Your task to perform on an android device: stop showing notifications on the lock screen Image 0: 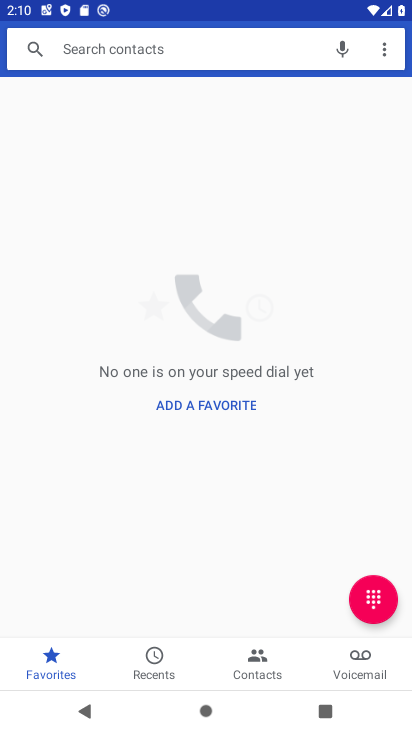
Step 0: press home button
Your task to perform on an android device: stop showing notifications on the lock screen Image 1: 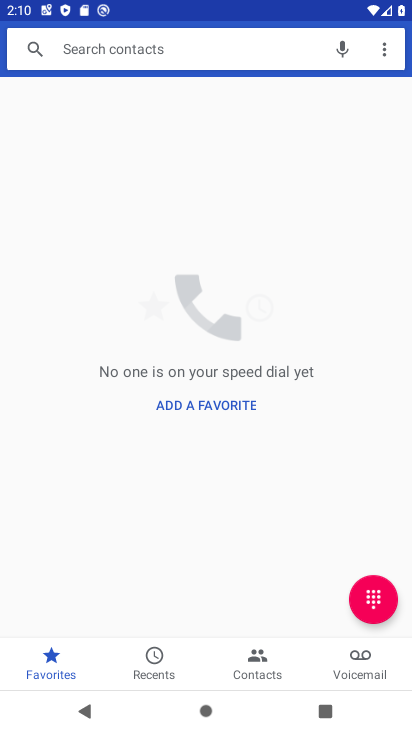
Step 1: drag from (217, 506) to (243, 213)
Your task to perform on an android device: stop showing notifications on the lock screen Image 2: 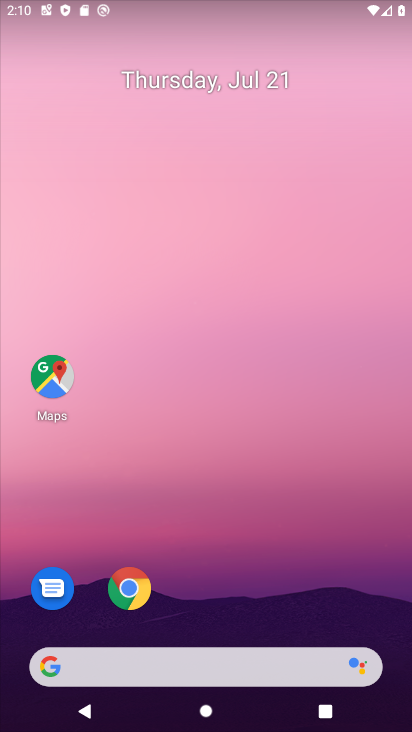
Step 2: drag from (207, 602) to (259, 312)
Your task to perform on an android device: stop showing notifications on the lock screen Image 3: 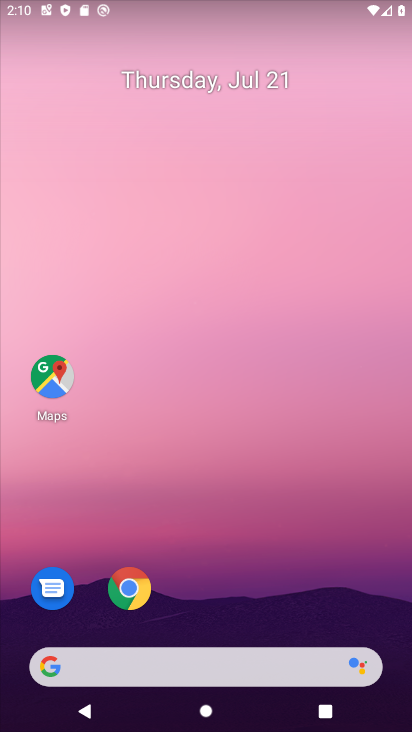
Step 3: drag from (186, 617) to (216, 82)
Your task to perform on an android device: stop showing notifications on the lock screen Image 4: 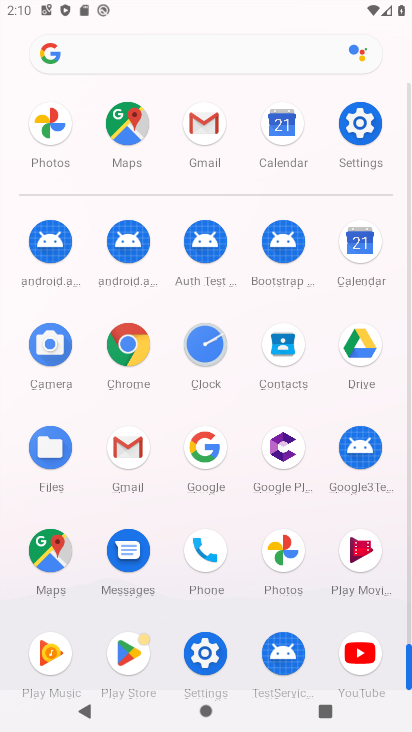
Step 4: click (199, 669)
Your task to perform on an android device: stop showing notifications on the lock screen Image 5: 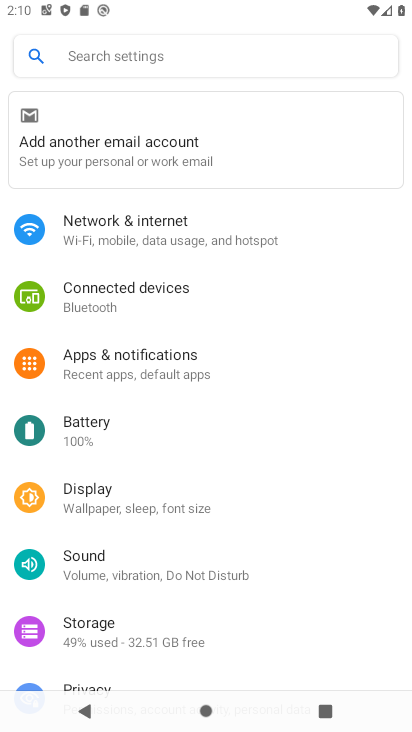
Step 5: drag from (237, 467) to (278, 63)
Your task to perform on an android device: stop showing notifications on the lock screen Image 6: 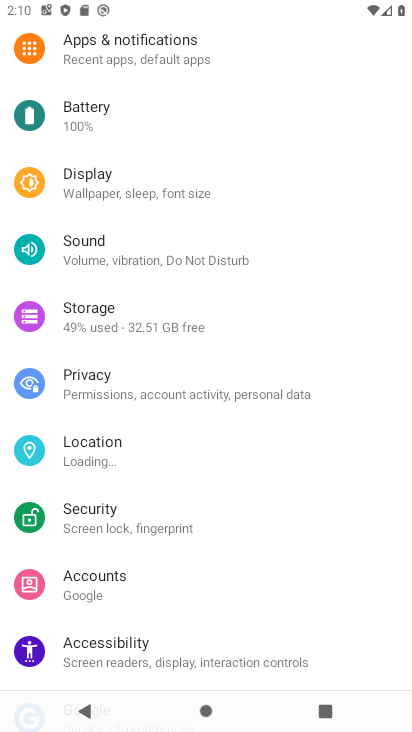
Step 6: drag from (211, 234) to (207, 719)
Your task to perform on an android device: stop showing notifications on the lock screen Image 7: 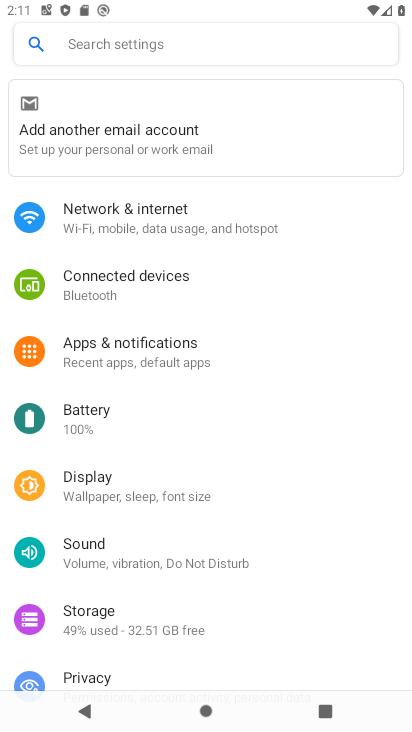
Step 7: click (154, 362)
Your task to perform on an android device: stop showing notifications on the lock screen Image 8: 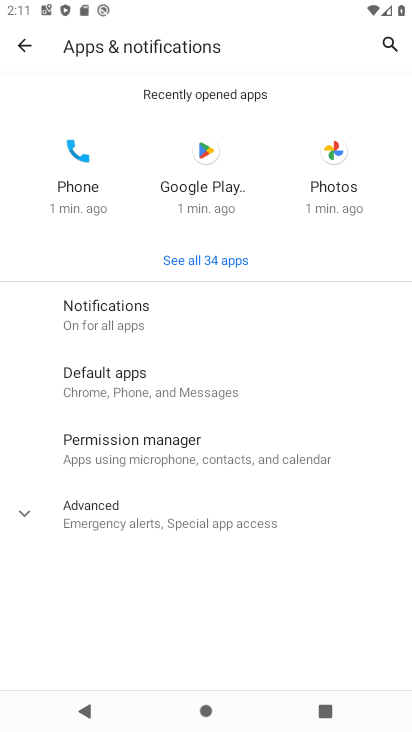
Step 8: click (147, 305)
Your task to perform on an android device: stop showing notifications on the lock screen Image 9: 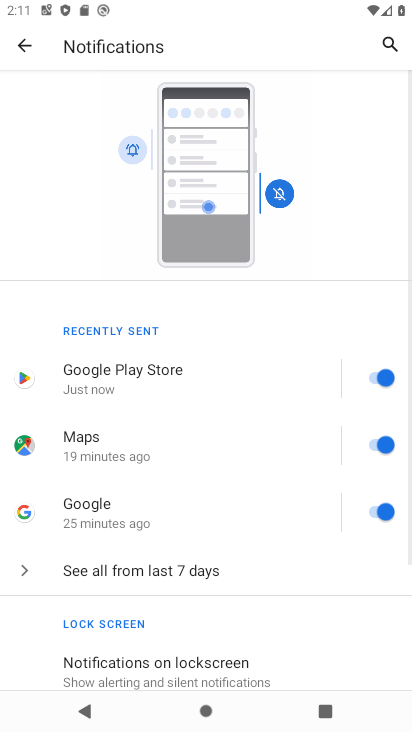
Step 9: click (138, 672)
Your task to perform on an android device: stop showing notifications on the lock screen Image 10: 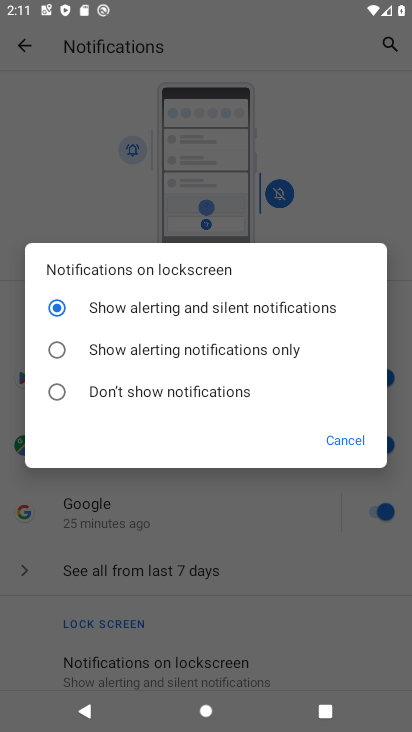
Step 10: drag from (173, 606) to (233, 228)
Your task to perform on an android device: stop showing notifications on the lock screen Image 11: 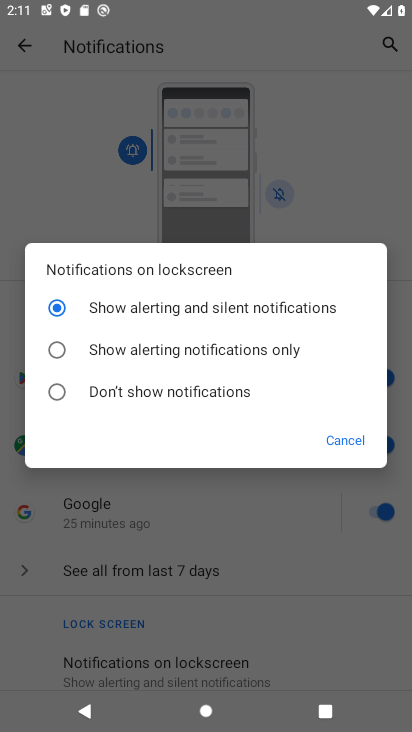
Step 11: click (62, 348)
Your task to perform on an android device: stop showing notifications on the lock screen Image 12: 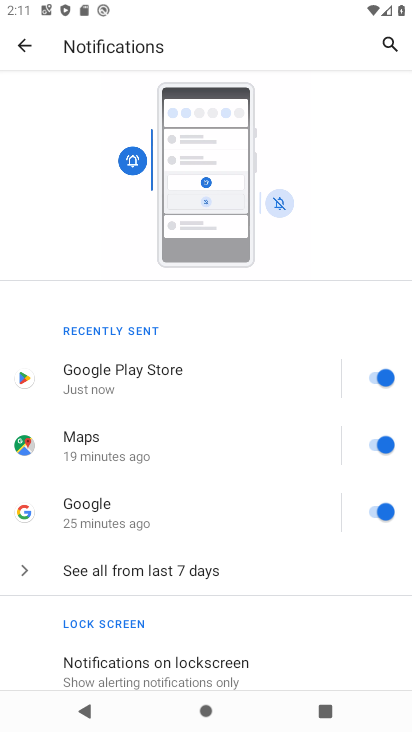
Step 12: drag from (254, 612) to (339, 188)
Your task to perform on an android device: stop showing notifications on the lock screen Image 13: 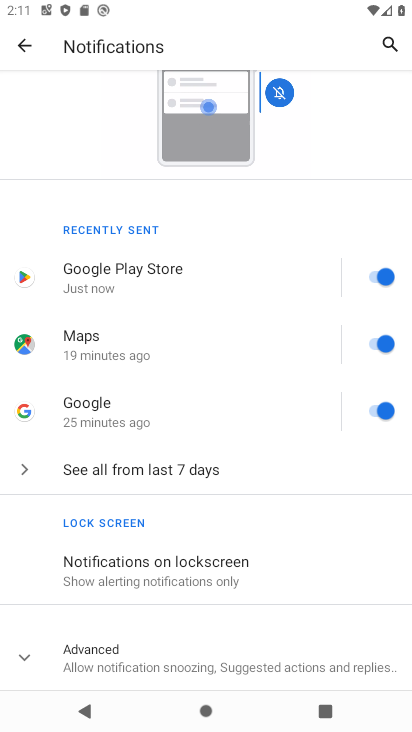
Step 13: drag from (289, 648) to (366, 218)
Your task to perform on an android device: stop showing notifications on the lock screen Image 14: 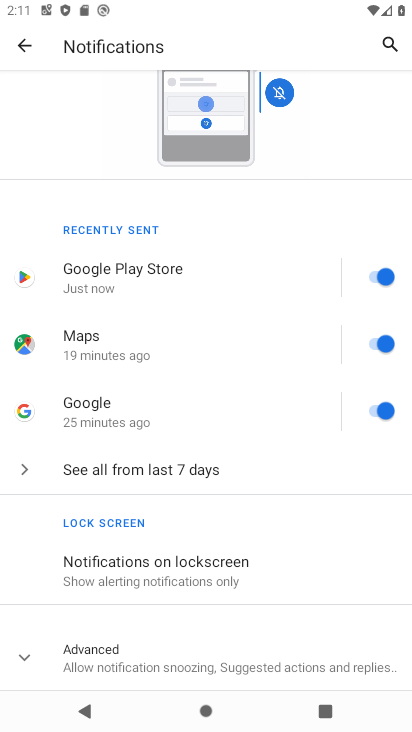
Step 14: click (152, 569)
Your task to perform on an android device: stop showing notifications on the lock screen Image 15: 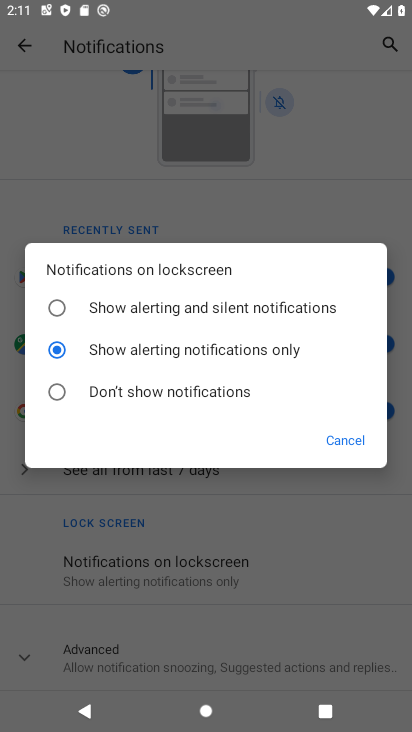
Step 15: click (61, 398)
Your task to perform on an android device: stop showing notifications on the lock screen Image 16: 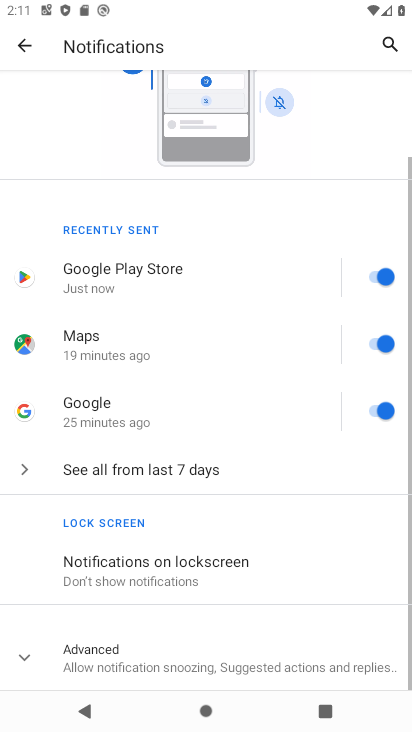
Step 16: task complete